Your task to perform on an android device: Open the Play Movies app and select the watchlist tab. Image 0: 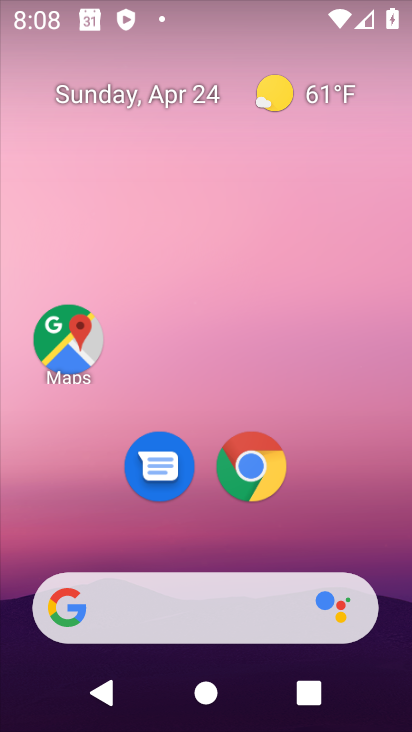
Step 0: drag from (221, 553) to (222, 1)
Your task to perform on an android device: Open the Play Movies app and select the watchlist tab. Image 1: 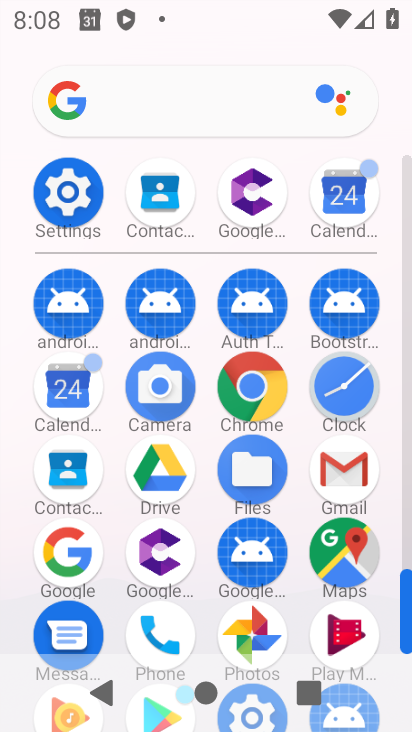
Step 1: click (353, 620)
Your task to perform on an android device: Open the Play Movies app and select the watchlist tab. Image 2: 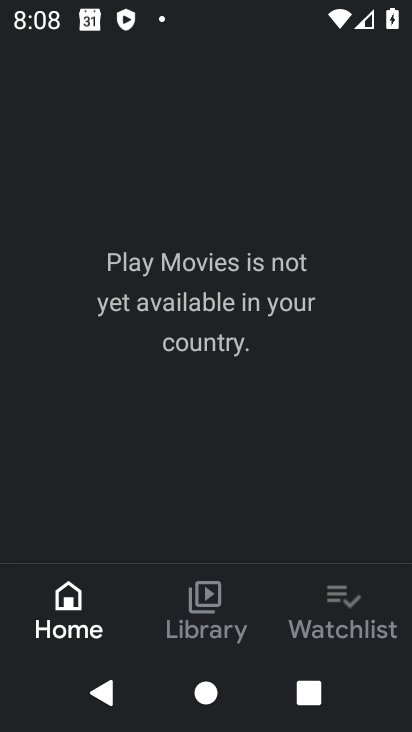
Step 2: click (371, 616)
Your task to perform on an android device: Open the Play Movies app and select the watchlist tab. Image 3: 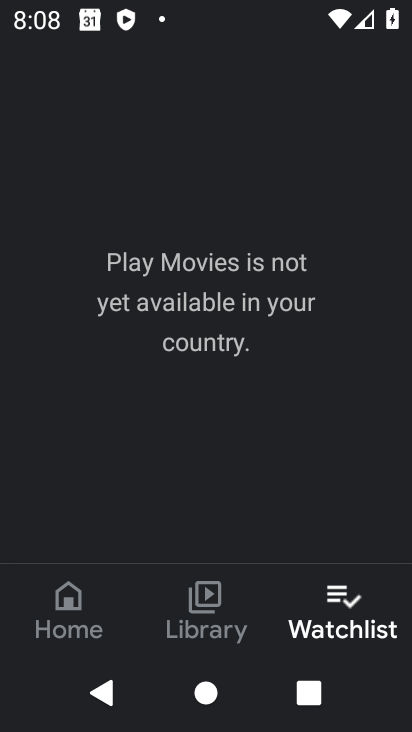
Step 3: task complete